Your task to perform on an android device: make emails show in primary in the gmail app Image 0: 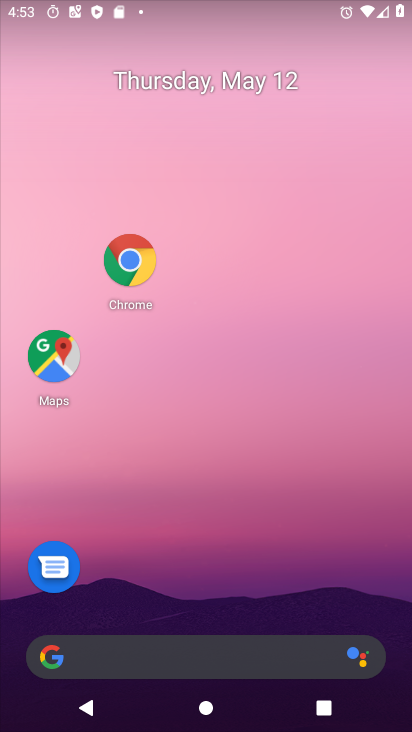
Step 0: press home button
Your task to perform on an android device: make emails show in primary in the gmail app Image 1: 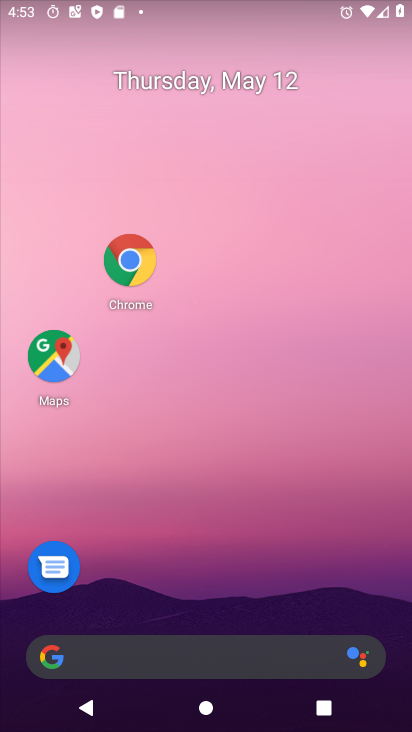
Step 1: drag from (150, 459) to (153, 308)
Your task to perform on an android device: make emails show in primary in the gmail app Image 2: 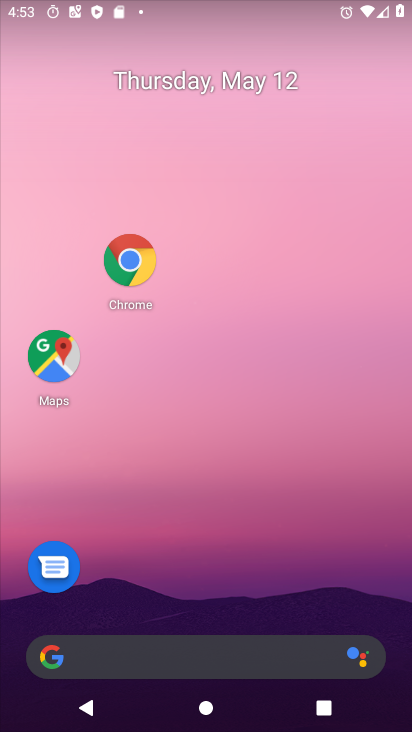
Step 2: click (233, 133)
Your task to perform on an android device: make emails show in primary in the gmail app Image 3: 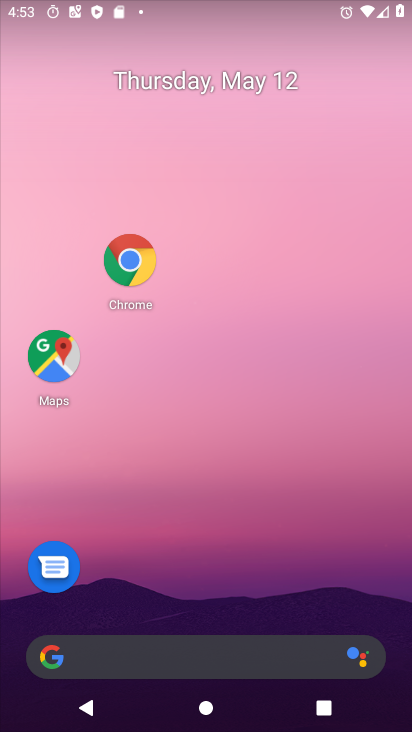
Step 3: drag from (198, 635) to (186, 229)
Your task to perform on an android device: make emails show in primary in the gmail app Image 4: 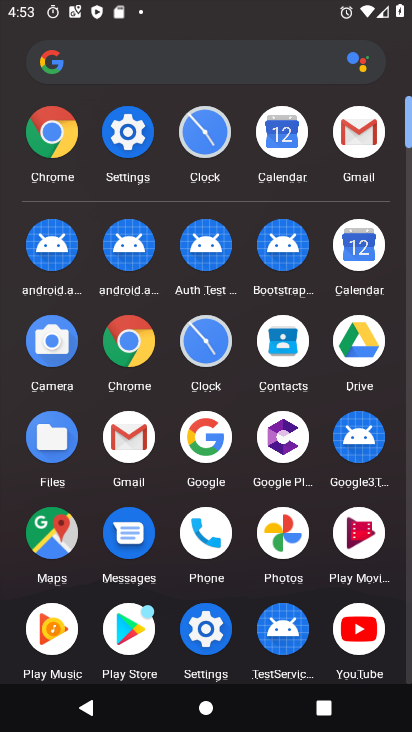
Step 4: click (360, 141)
Your task to perform on an android device: make emails show in primary in the gmail app Image 5: 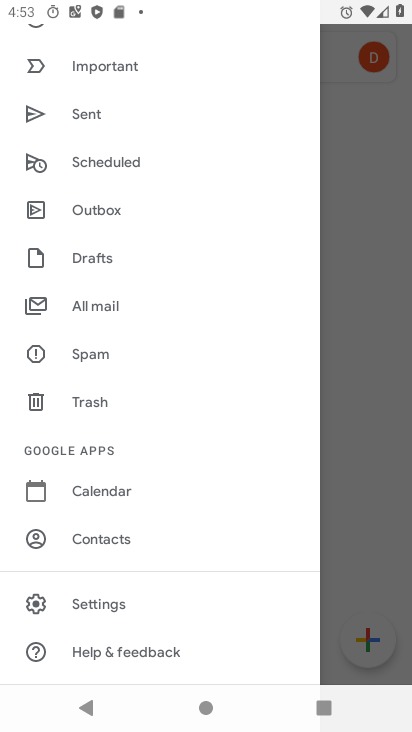
Step 5: click (162, 564)
Your task to perform on an android device: make emails show in primary in the gmail app Image 6: 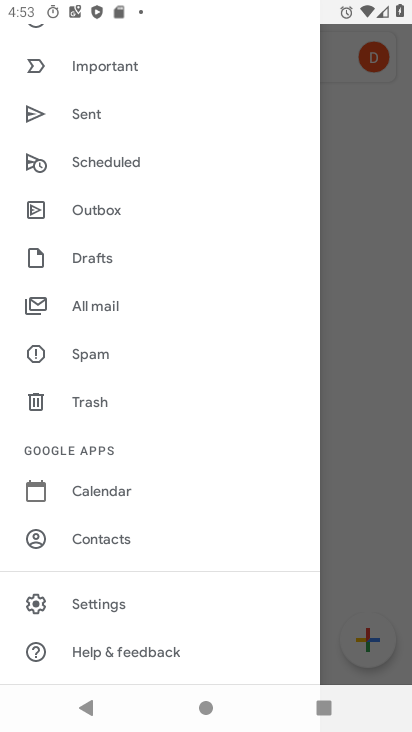
Step 6: click (114, 605)
Your task to perform on an android device: make emails show in primary in the gmail app Image 7: 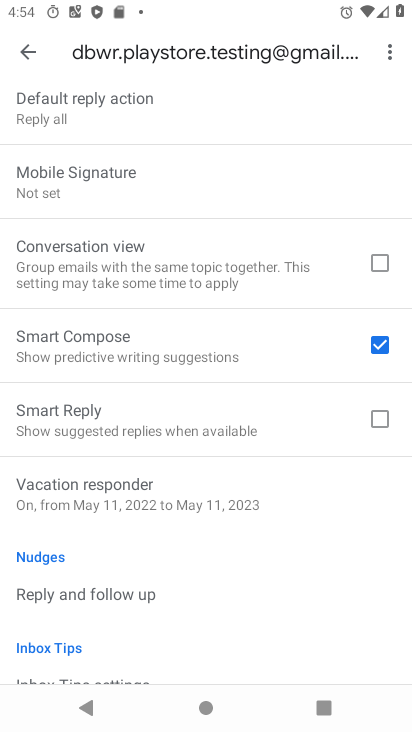
Step 7: click (55, 102)
Your task to perform on an android device: make emails show in primary in the gmail app Image 8: 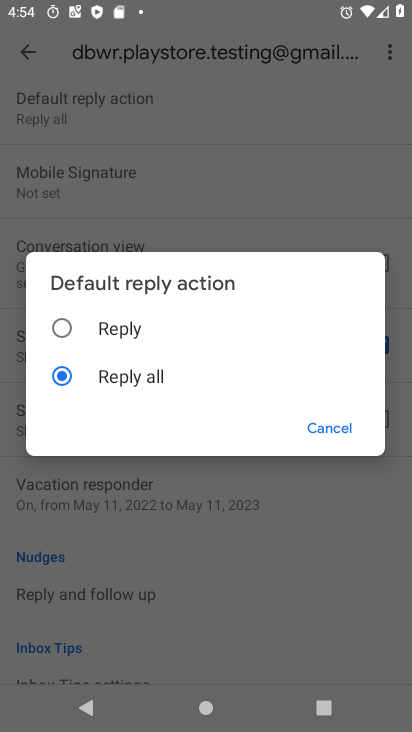
Step 8: click (314, 425)
Your task to perform on an android device: make emails show in primary in the gmail app Image 9: 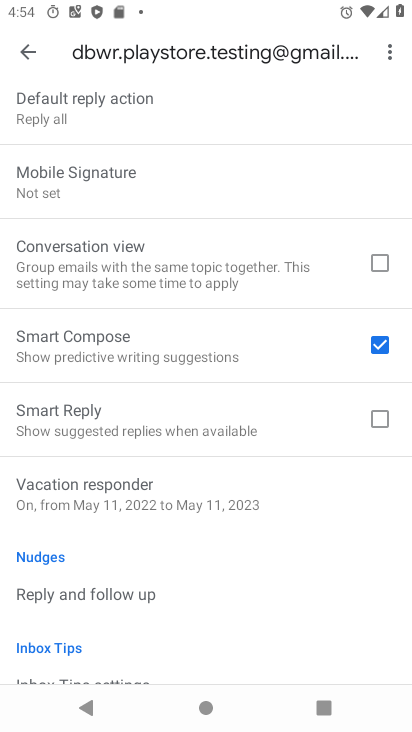
Step 9: drag from (151, 106) to (154, 439)
Your task to perform on an android device: make emails show in primary in the gmail app Image 10: 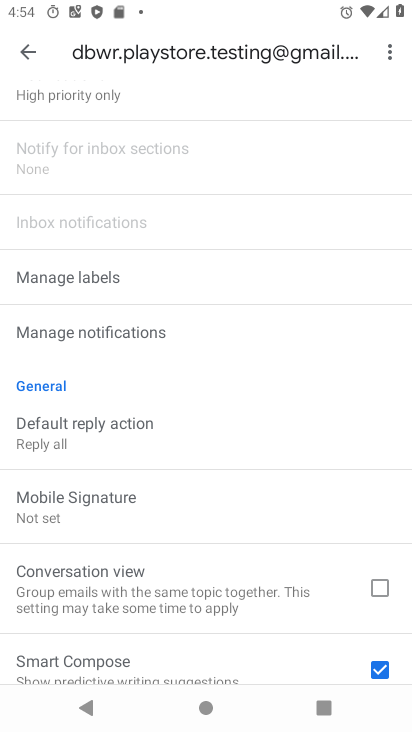
Step 10: click (77, 375)
Your task to perform on an android device: make emails show in primary in the gmail app Image 11: 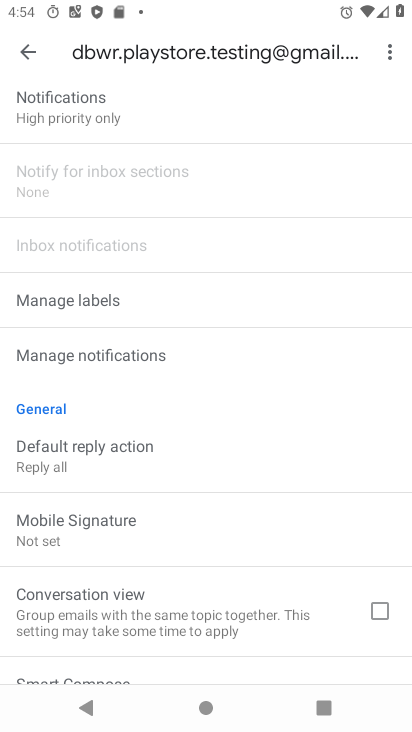
Step 11: drag from (89, 106) to (144, 454)
Your task to perform on an android device: make emails show in primary in the gmail app Image 12: 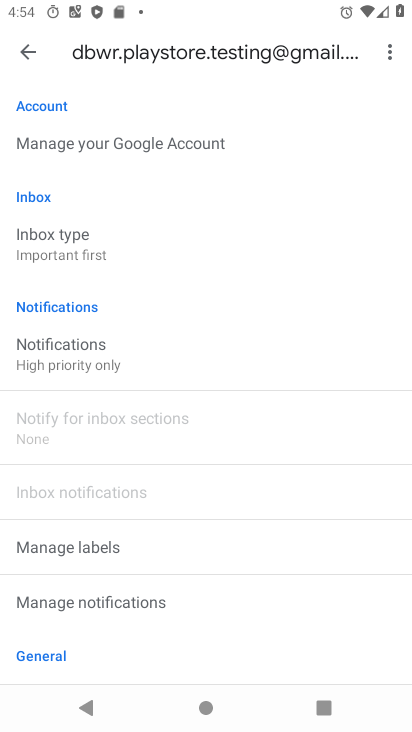
Step 12: click (60, 235)
Your task to perform on an android device: make emails show in primary in the gmail app Image 13: 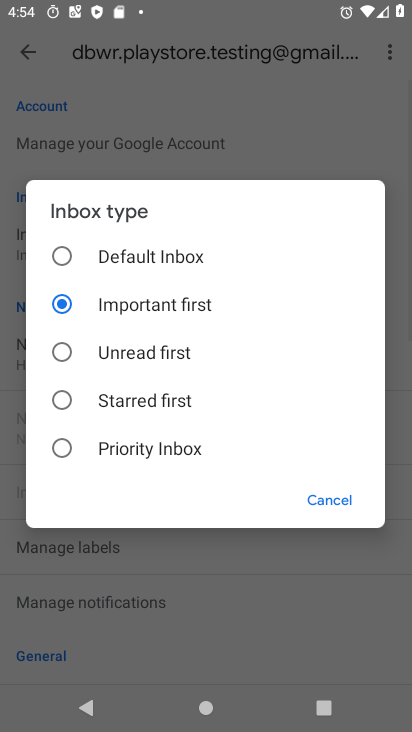
Step 13: click (104, 257)
Your task to perform on an android device: make emails show in primary in the gmail app Image 14: 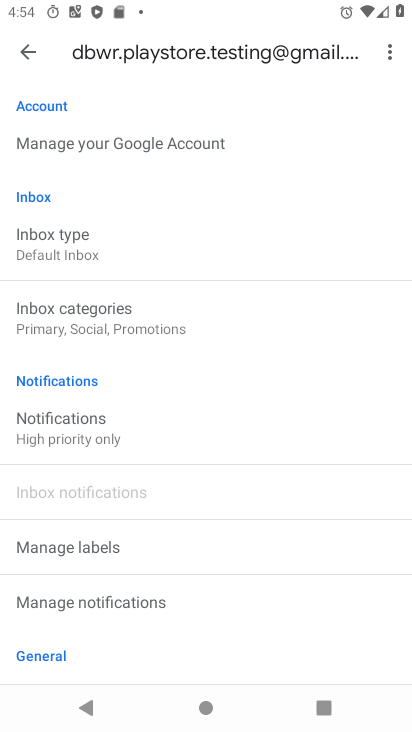
Step 14: click (76, 318)
Your task to perform on an android device: make emails show in primary in the gmail app Image 15: 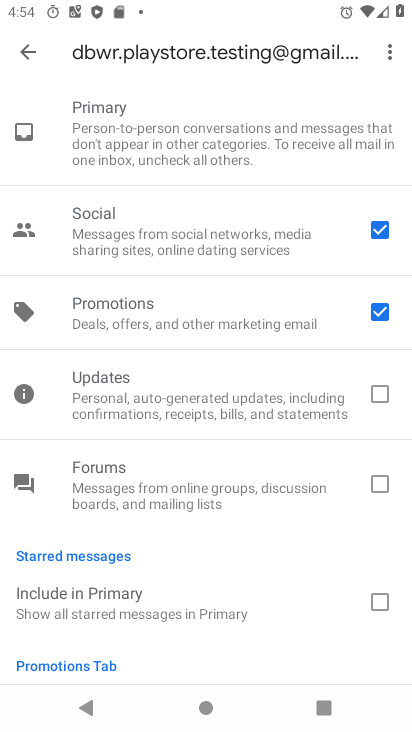
Step 15: click (372, 312)
Your task to perform on an android device: make emails show in primary in the gmail app Image 16: 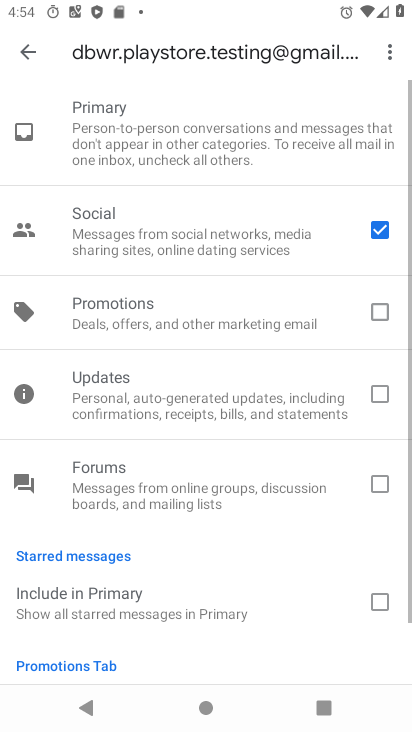
Step 16: click (381, 219)
Your task to perform on an android device: make emails show in primary in the gmail app Image 17: 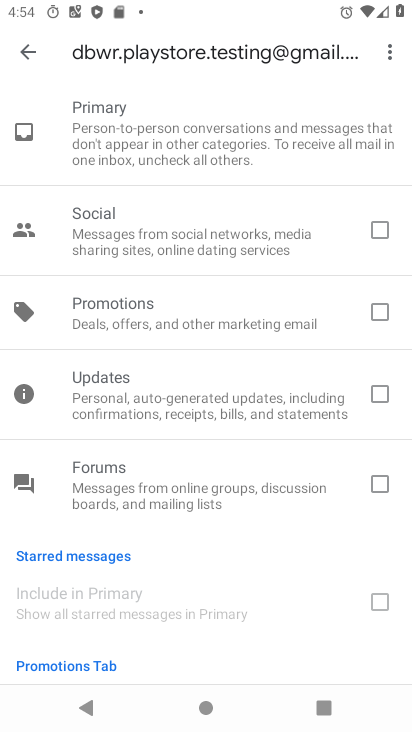
Step 17: click (18, 52)
Your task to perform on an android device: make emails show in primary in the gmail app Image 18: 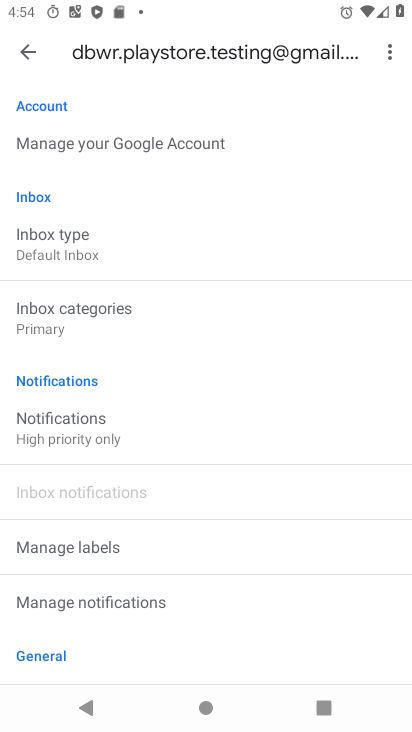
Step 18: task complete